Your task to perform on an android device: move a message to another label in the gmail app Image 0: 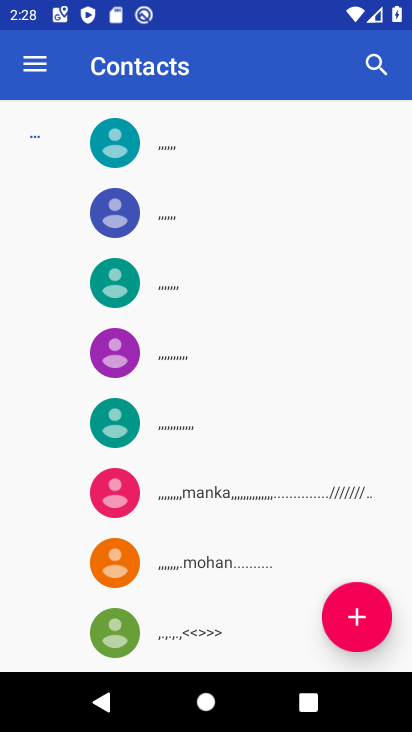
Step 0: drag from (230, 505) to (323, 238)
Your task to perform on an android device: move a message to another label in the gmail app Image 1: 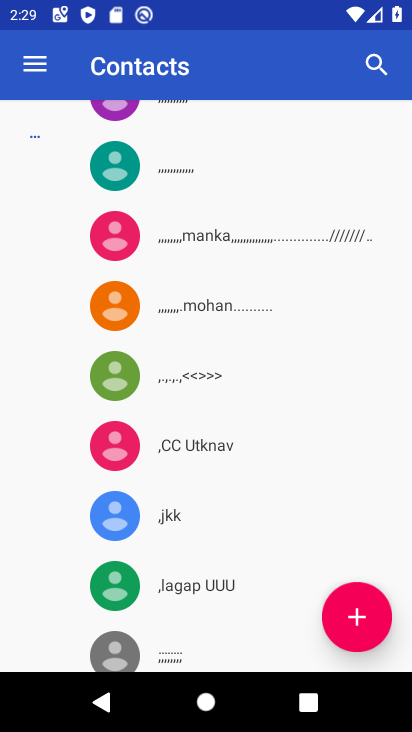
Step 1: drag from (183, 483) to (222, 27)
Your task to perform on an android device: move a message to another label in the gmail app Image 2: 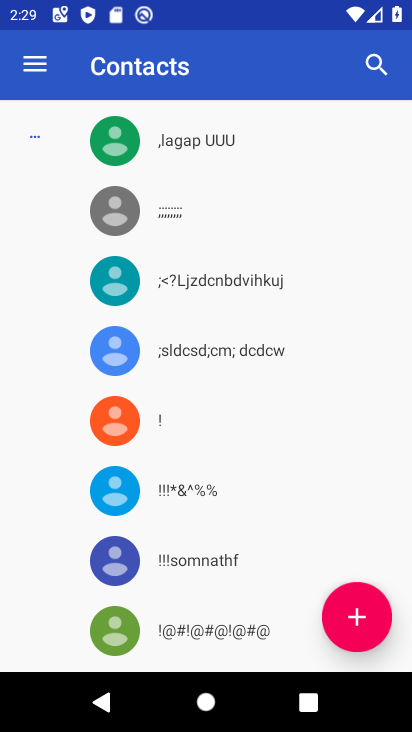
Step 2: drag from (235, 541) to (264, 285)
Your task to perform on an android device: move a message to another label in the gmail app Image 3: 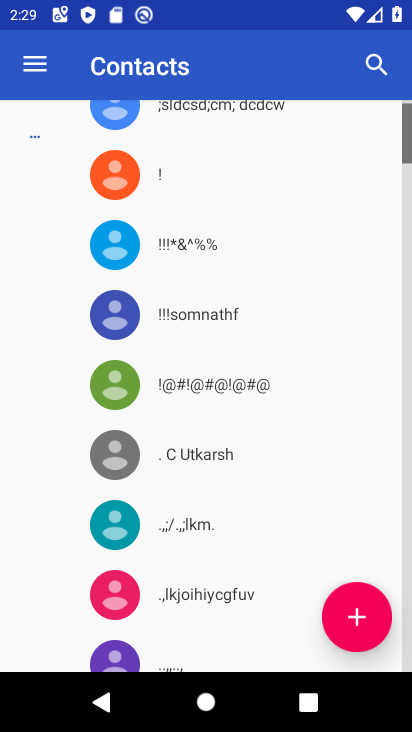
Step 3: press home button
Your task to perform on an android device: move a message to another label in the gmail app Image 4: 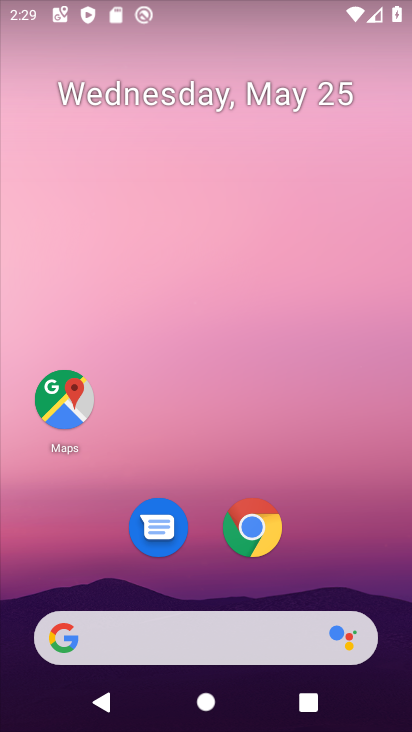
Step 4: drag from (183, 563) to (225, 158)
Your task to perform on an android device: move a message to another label in the gmail app Image 5: 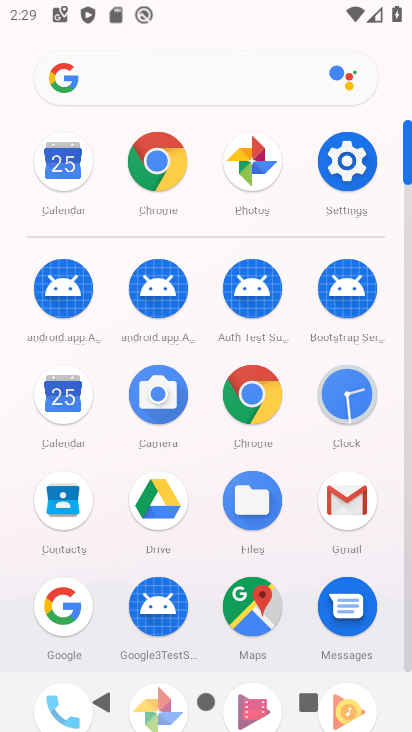
Step 5: click (339, 503)
Your task to perform on an android device: move a message to another label in the gmail app Image 6: 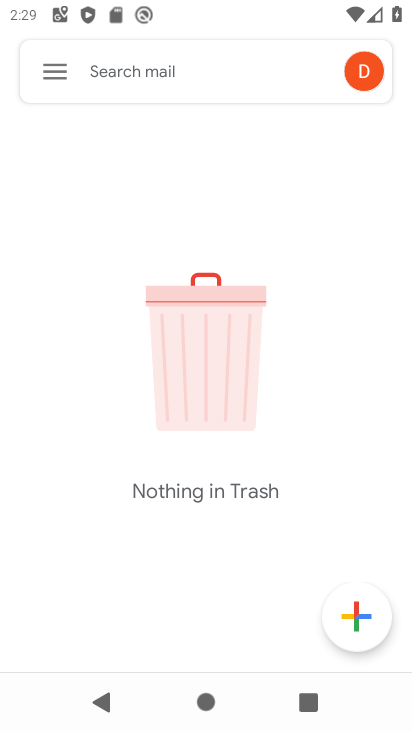
Step 6: drag from (259, 529) to (223, 270)
Your task to perform on an android device: move a message to another label in the gmail app Image 7: 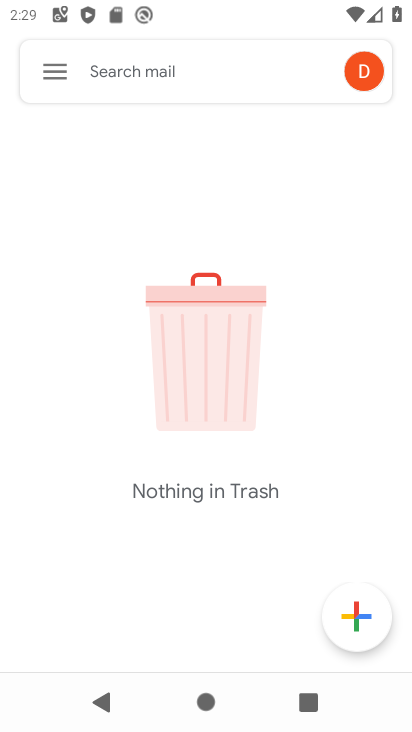
Step 7: click (42, 70)
Your task to perform on an android device: move a message to another label in the gmail app Image 8: 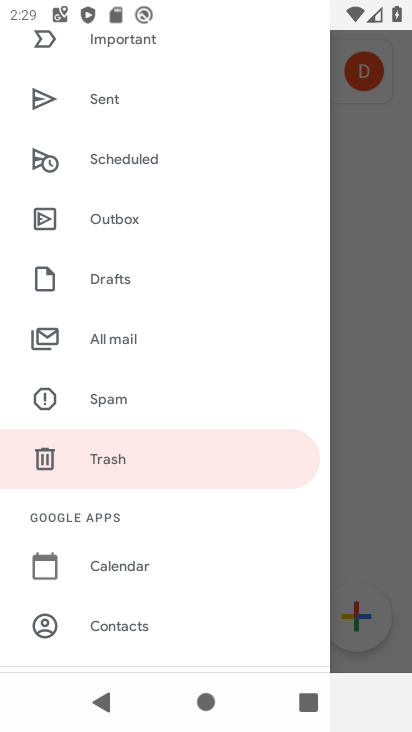
Step 8: drag from (159, 210) to (281, 706)
Your task to perform on an android device: move a message to another label in the gmail app Image 9: 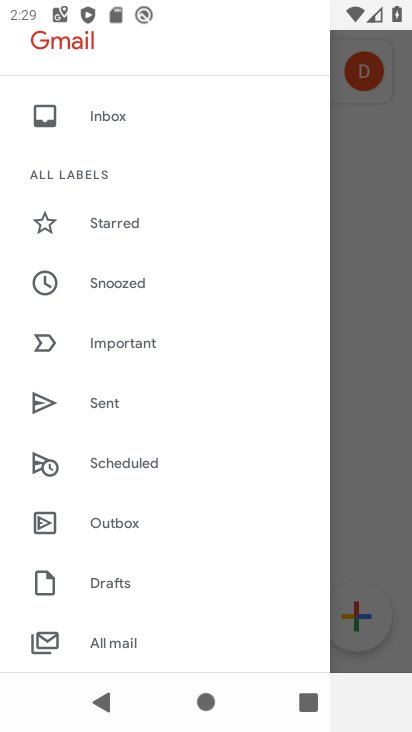
Step 9: drag from (150, 227) to (254, 714)
Your task to perform on an android device: move a message to another label in the gmail app Image 10: 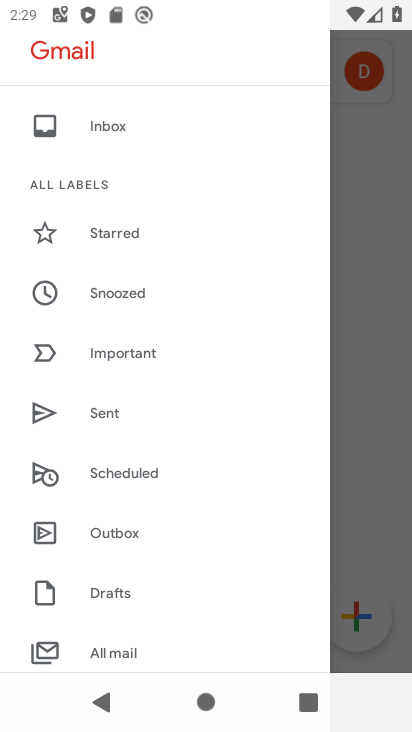
Step 10: press home button
Your task to perform on an android device: move a message to another label in the gmail app Image 11: 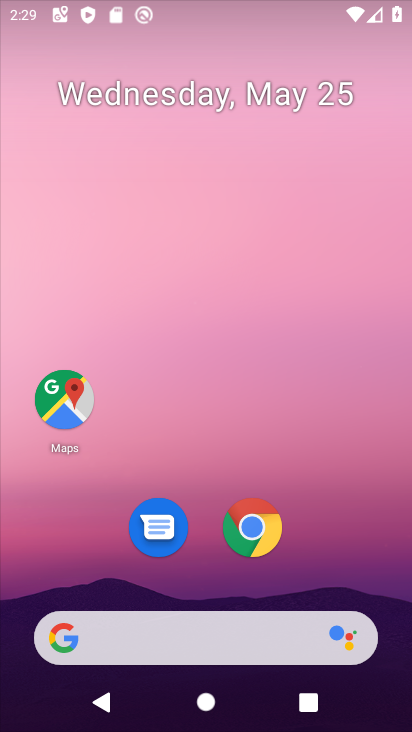
Step 11: drag from (206, 565) to (202, 314)
Your task to perform on an android device: move a message to another label in the gmail app Image 12: 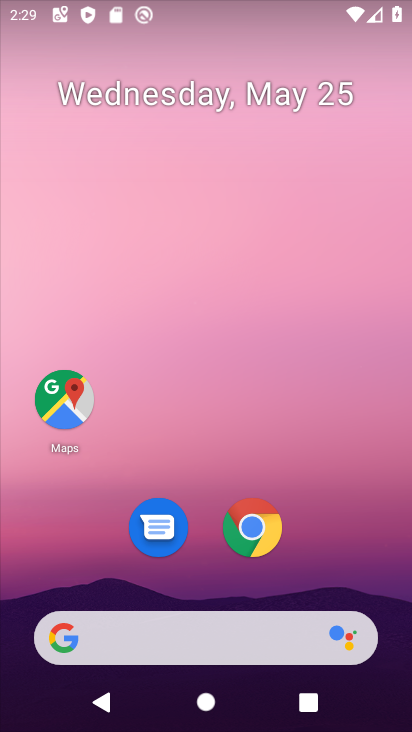
Step 12: drag from (183, 564) to (273, 132)
Your task to perform on an android device: move a message to another label in the gmail app Image 13: 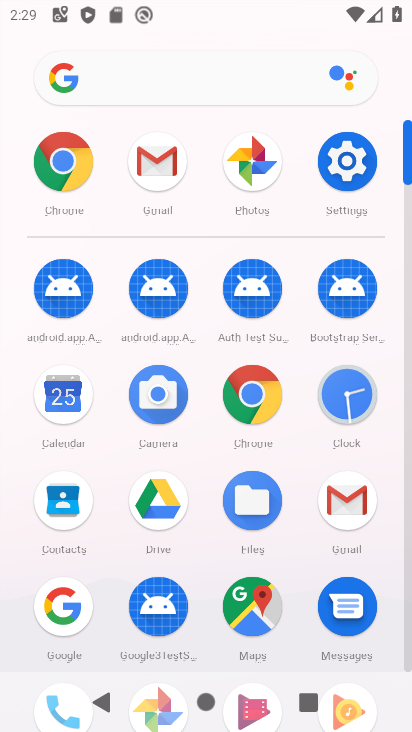
Step 13: click (343, 500)
Your task to perform on an android device: move a message to another label in the gmail app Image 14: 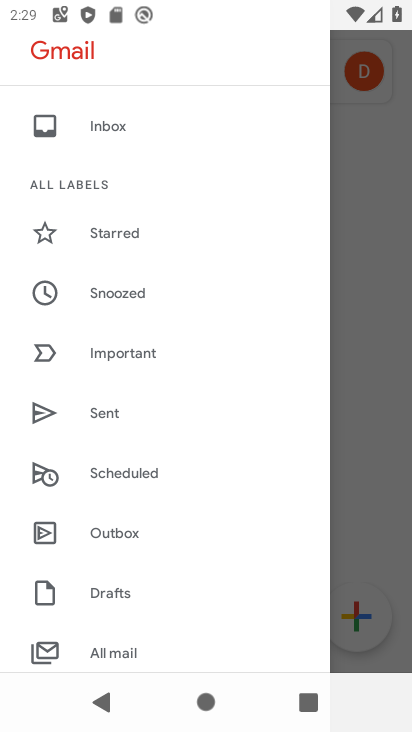
Step 14: click (141, 138)
Your task to perform on an android device: move a message to another label in the gmail app Image 15: 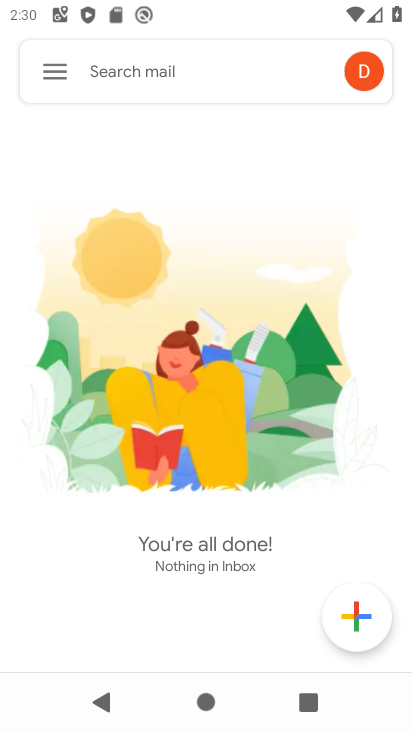
Step 15: click (49, 64)
Your task to perform on an android device: move a message to another label in the gmail app Image 16: 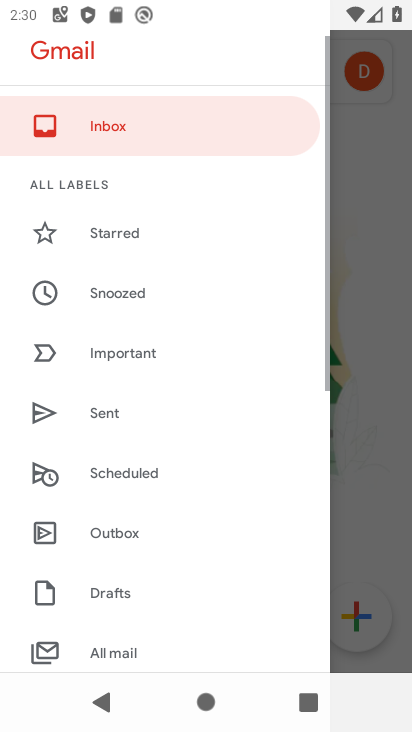
Step 16: click (80, 122)
Your task to perform on an android device: move a message to another label in the gmail app Image 17: 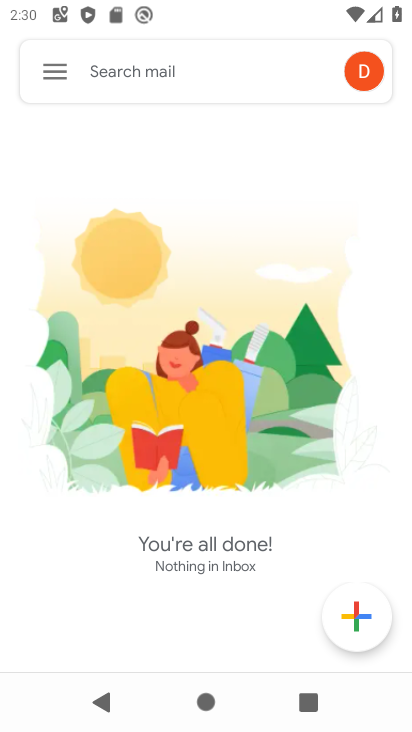
Step 17: task complete